Your task to perform on an android device: turn off translation in the chrome app Image 0: 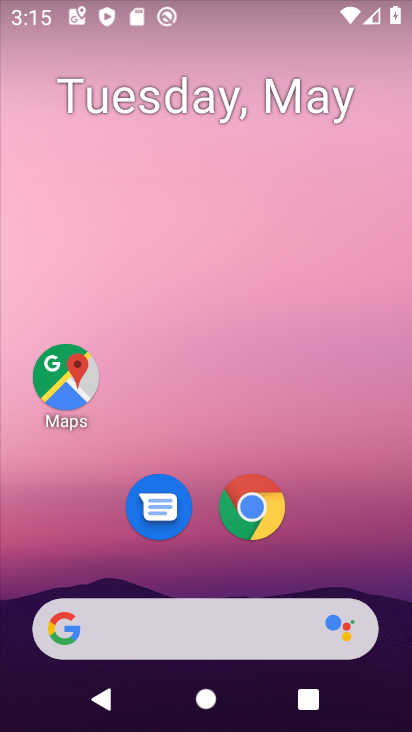
Step 0: click (248, 510)
Your task to perform on an android device: turn off translation in the chrome app Image 1: 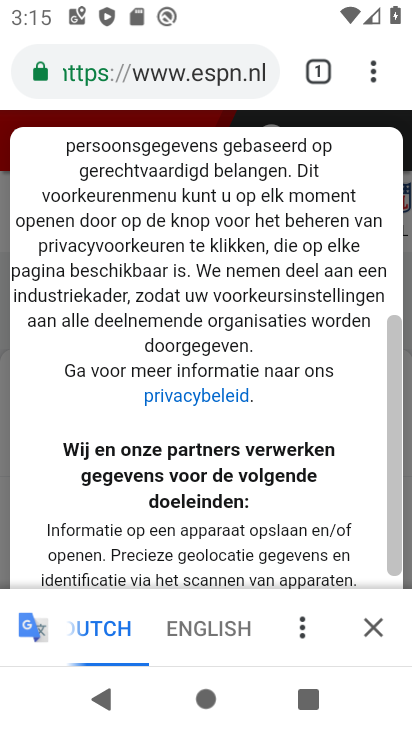
Step 1: click (373, 79)
Your task to perform on an android device: turn off translation in the chrome app Image 2: 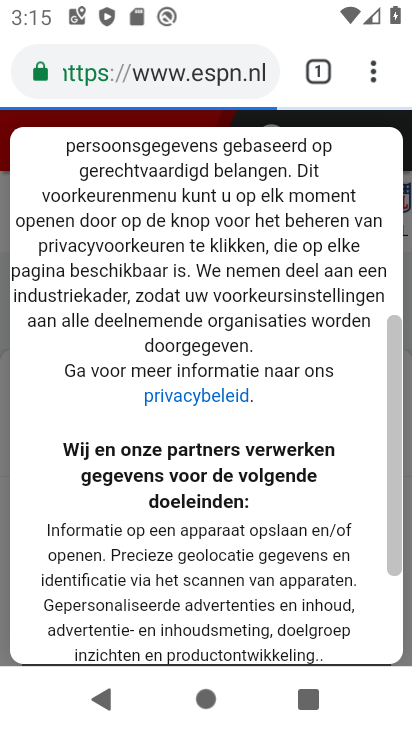
Step 2: click (395, 84)
Your task to perform on an android device: turn off translation in the chrome app Image 3: 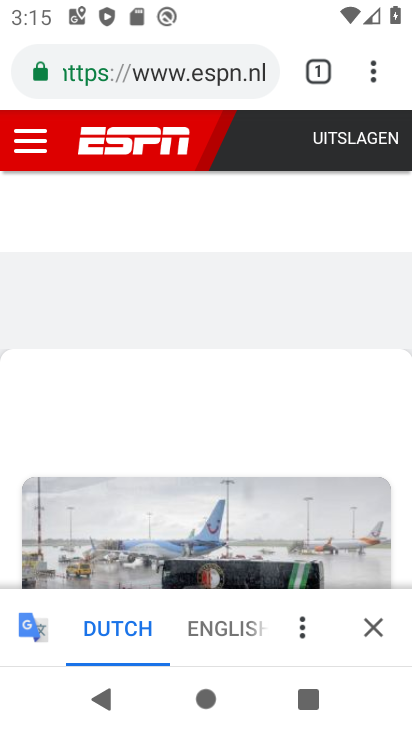
Step 3: click (395, 85)
Your task to perform on an android device: turn off translation in the chrome app Image 4: 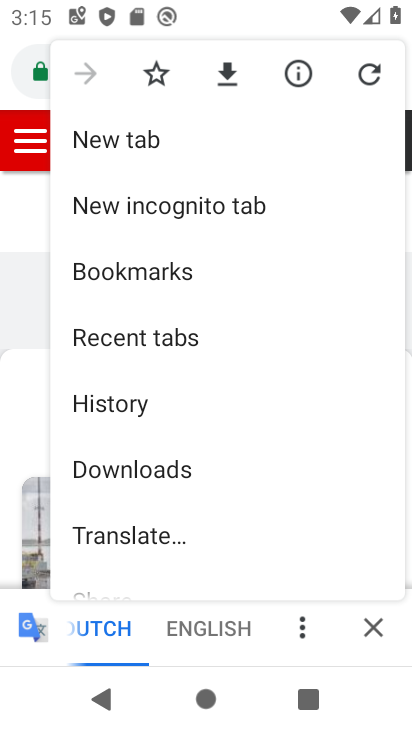
Step 4: drag from (141, 528) to (148, 257)
Your task to perform on an android device: turn off translation in the chrome app Image 5: 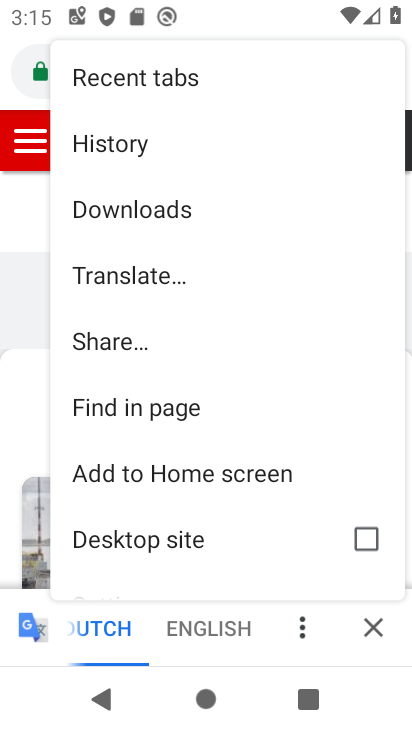
Step 5: drag from (191, 550) to (185, 368)
Your task to perform on an android device: turn off translation in the chrome app Image 6: 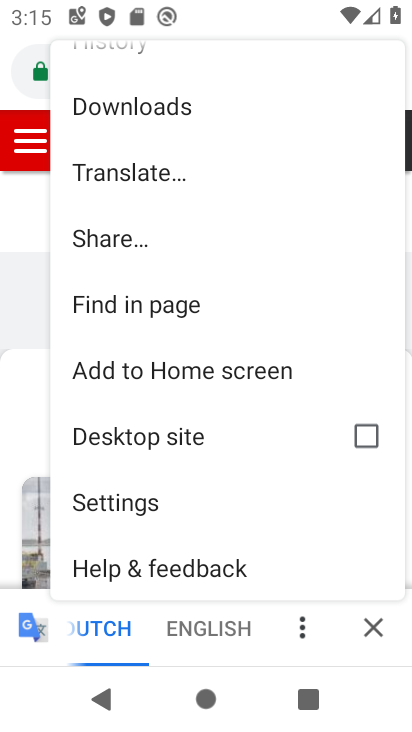
Step 6: click (156, 504)
Your task to perform on an android device: turn off translation in the chrome app Image 7: 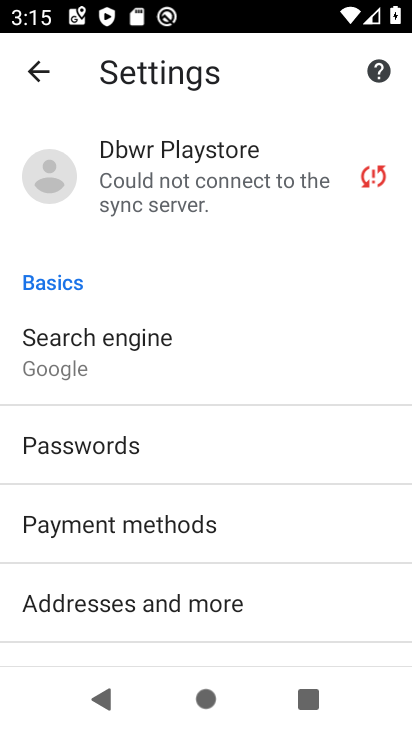
Step 7: drag from (174, 591) to (158, 403)
Your task to perform on an android device: turn off translation in the chrome app Image 8: 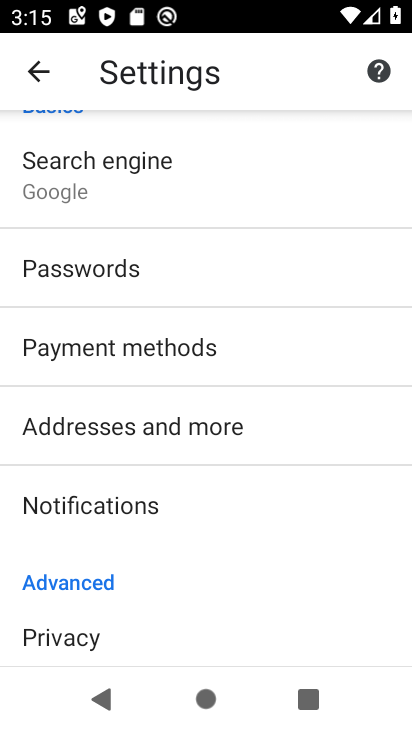
Step 8: drag from (167, 616) to (170, 383)
Your task to perform on an android device: turn off translation in the chrome app Image 9: 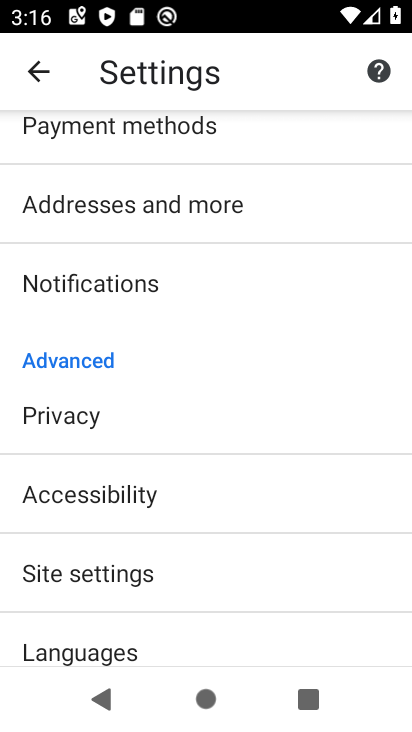
Step 9: click (135, 644)
Your task to perform on an android device: turn off translation in the chrome app Image 10: 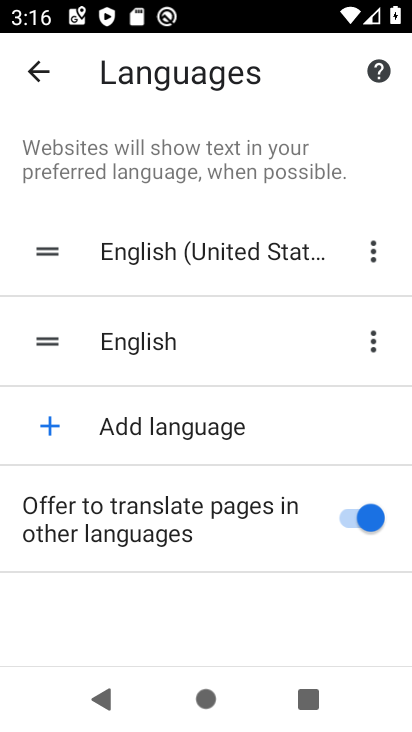
Step 10: click (333, 534)
Your task to perform on an android device: turn off translation in the chrome app Image 11: 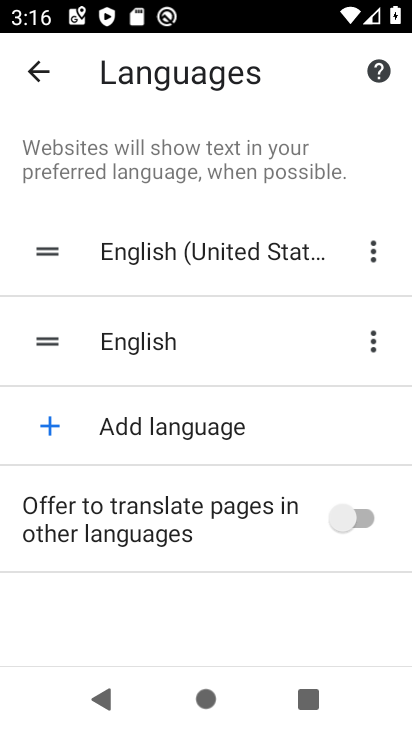
Step 11: task complete